Your task to perform on an android device: Search for Mexican restaurants on Maps Image 0: 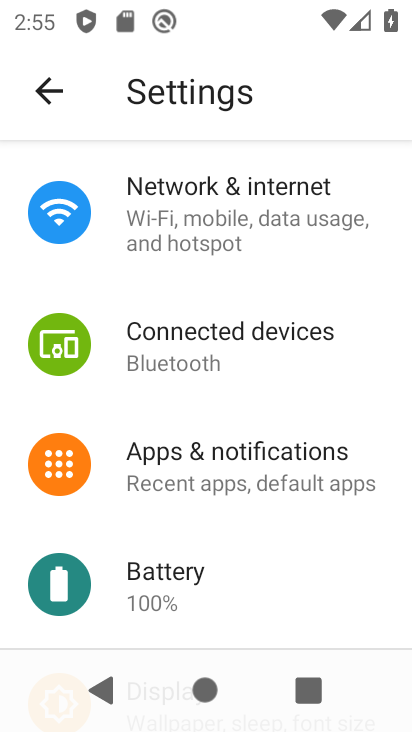
Step 0: press home button
Your task to perform on an android device: Search for Mexican restaurants on Maps Image 1: 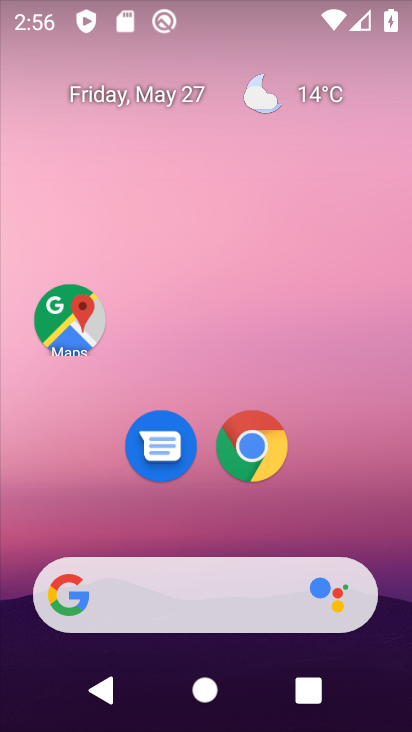
Step 1: click (69, 323)
Your task to perform on an android device: Search for Mexican restaurants on Maps Image 2: 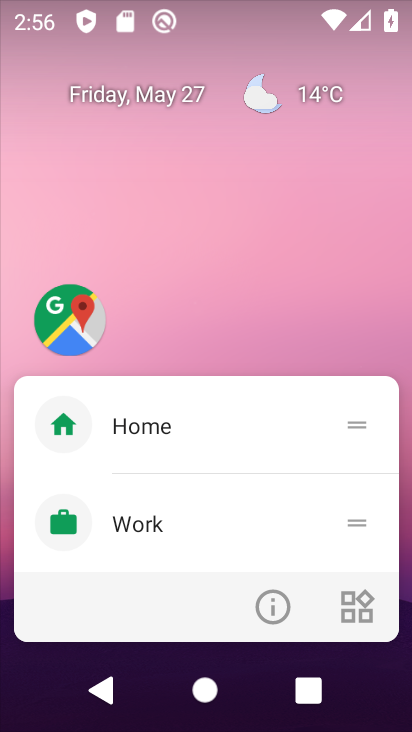
Step 2: click (73, 330)
Your task to perform on an android device: Search for Mexican restaurants on Maps Image 3: 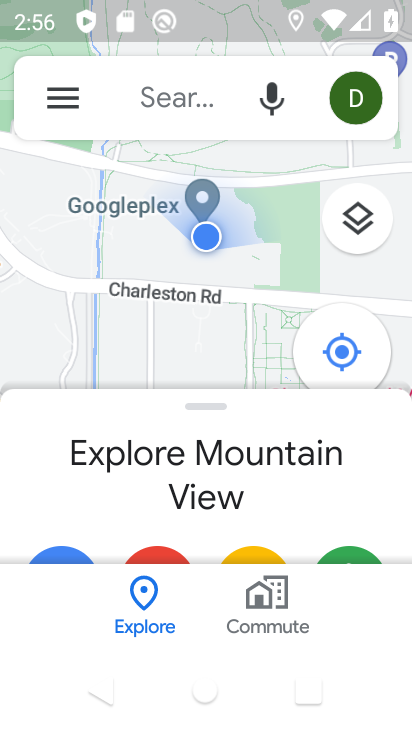
Step 3: click (164, 92)
Your task to perform on an android device: Search for Mexican restaurants on Maps Image 4: 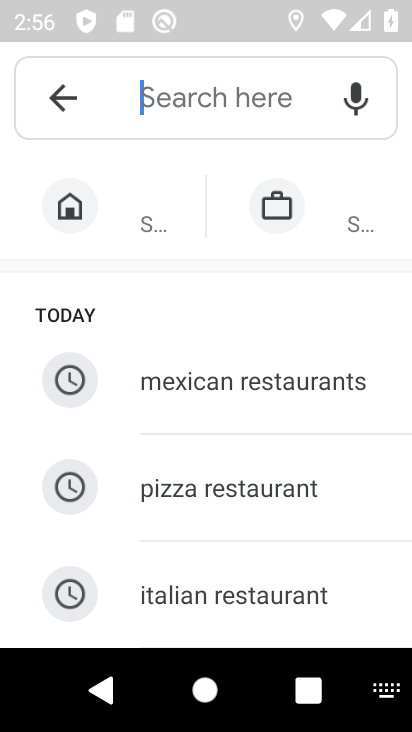
Step 4: click (212, 384)
Your task to perform on an android device: Search for Mexican restaurants on Maps Image 5: 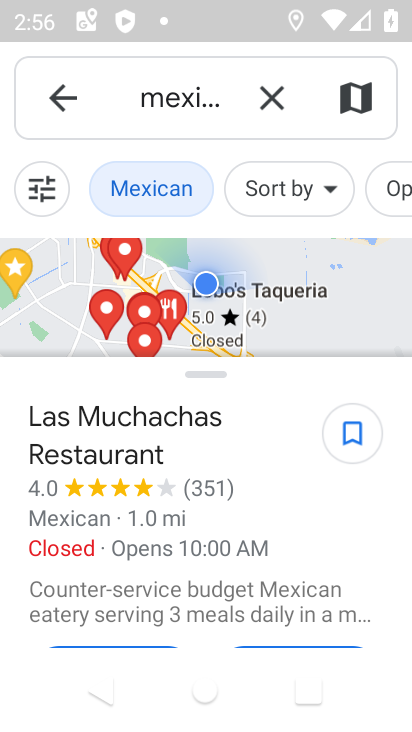
Step 5: task complete